Your task to perform on an android device: Open the Play Movies app and select the watchlist tab. Image 0: 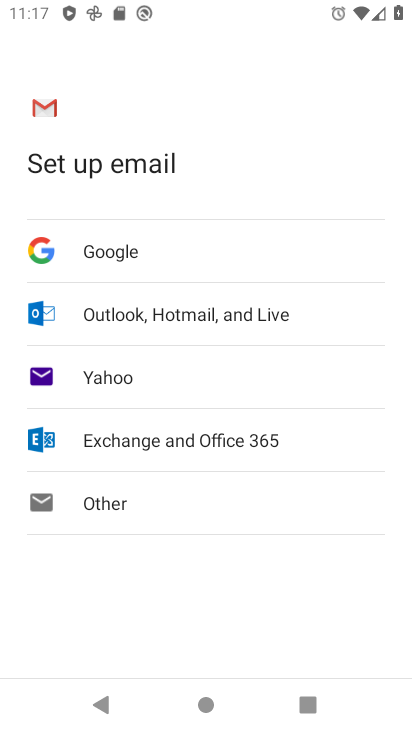
Step 0: press back button
Your task to perform on an android device: Open the Play Movies app and select the watchlist tab. Image 1: 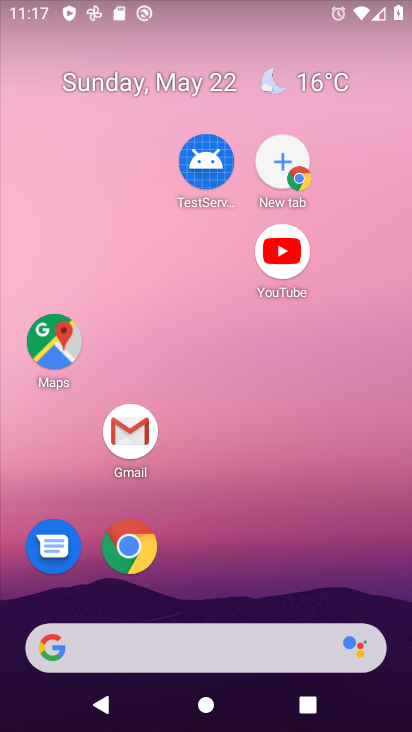
Step 1: drag from (314, 691) to (230, 155)
Your task to perform on an android device: Open the Play Movies app and select the watchlist tab. Image 2: 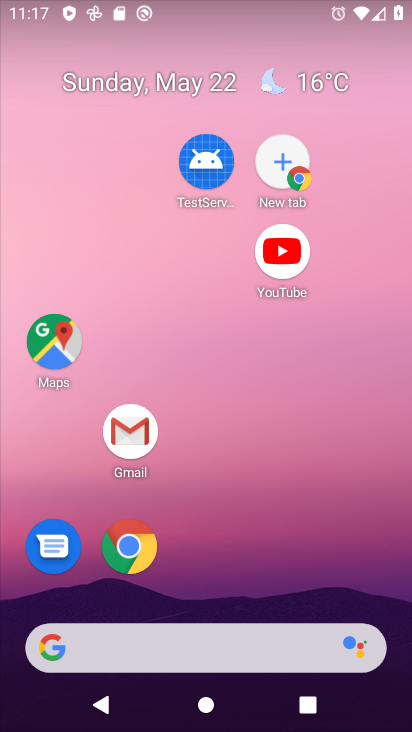
Step 2: drag from (246, 702) to (233, 259)
Your task to perform on an android device: Open the Play Movies app and select the watchlist tab. Image 3: 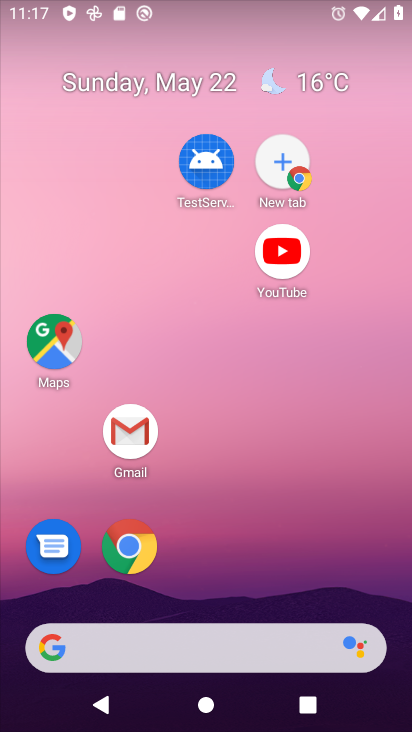
Step 3: drag from (264, 698) to (225, 159)
Your task to perform on an android device: Open the Play Movies app and select the watchlist tab. Image 4: 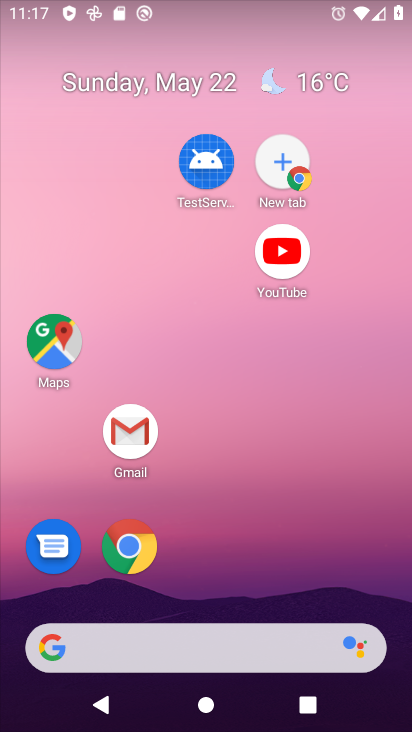
Step 4: drag from (251, 624) to (251, 176)
Your task to perform on an android device: Open the Play Movies app and select the watchlist tab. Image 5: 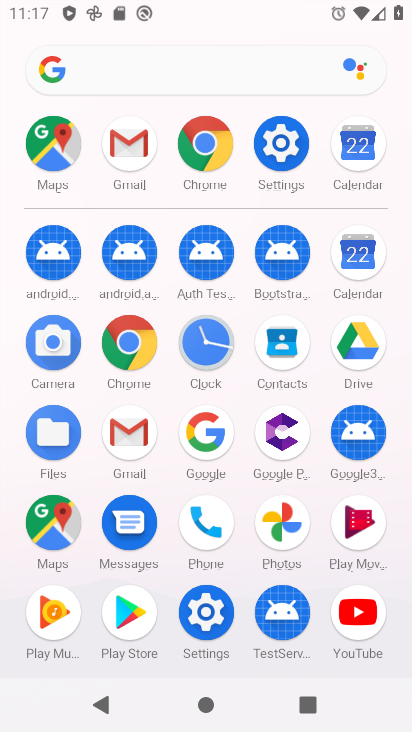
Step 5: drag from (252, 470) to (252, 194)
Your task to perform on an android device: Open the Play Movies app and select the watchlist tab. Image 6: 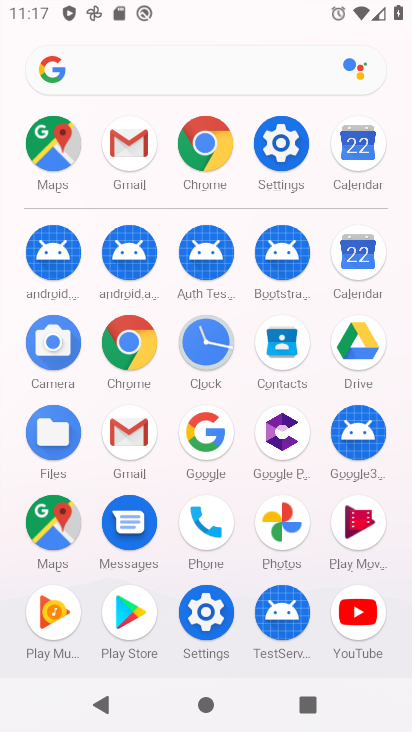
Step 6: click (362, 596)
Your task to perform on an android device: Open the Play Movies app and select the watchlist tab. Image 7: 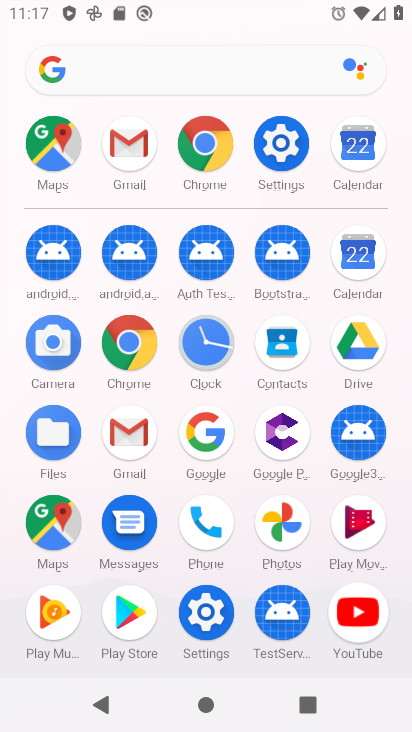
Step 7: click (362, 607)
Your task to perform on an android device: Open the Play Movies app and select the watchlist tab. Image 8: 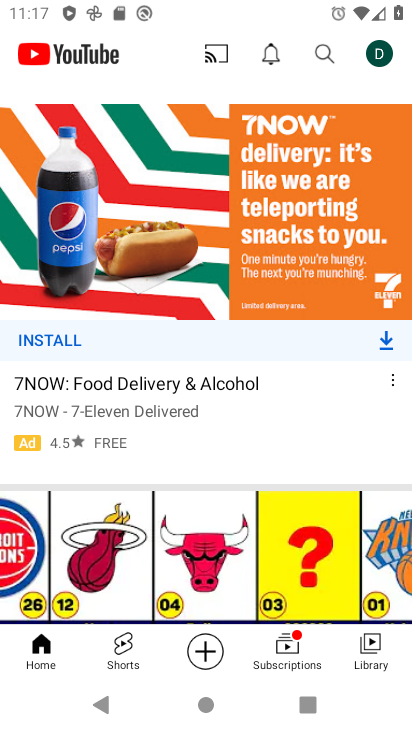
Step 8: press back button
Your task to perform on an android device: Open the Play Movies app and select the watchlist tab. Image 9: 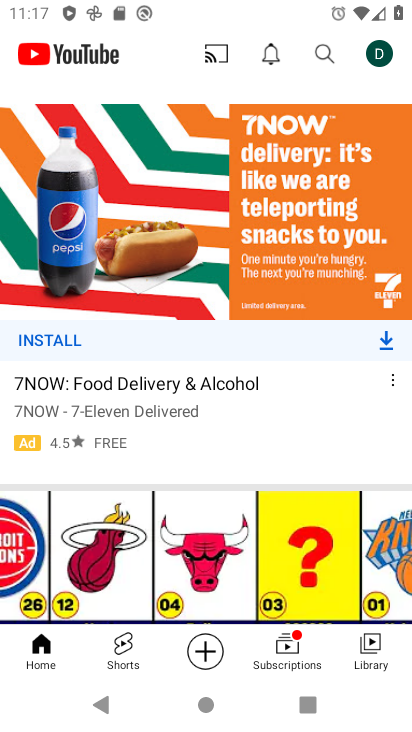
Step 9: press back button
Your task to perform on an android device: Open the Play Movies app and select the watchlist tab. Image 10: 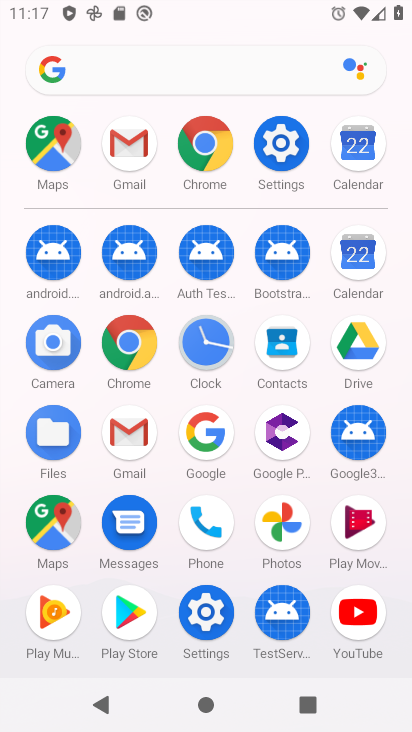
Step 10: press back button
Your task to perform on an android device: Open the Play Movies app and select the watchlist tab. Image 11: 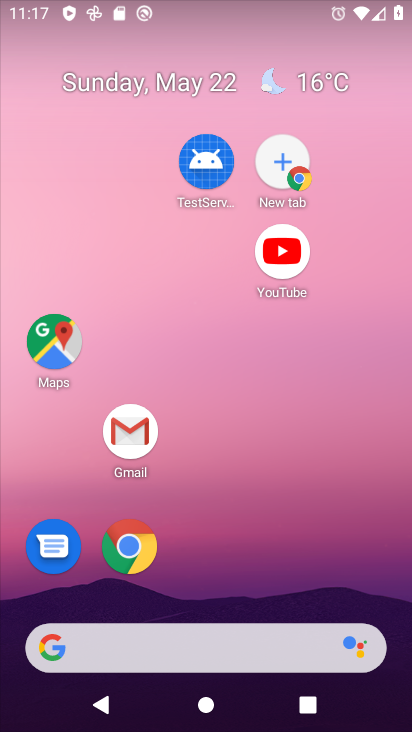
Step 11: drag from (249, 572) to (178, 147)
Your task to perform on an android device: Open the Play Movies app and select the watchlist tab. Image 12: 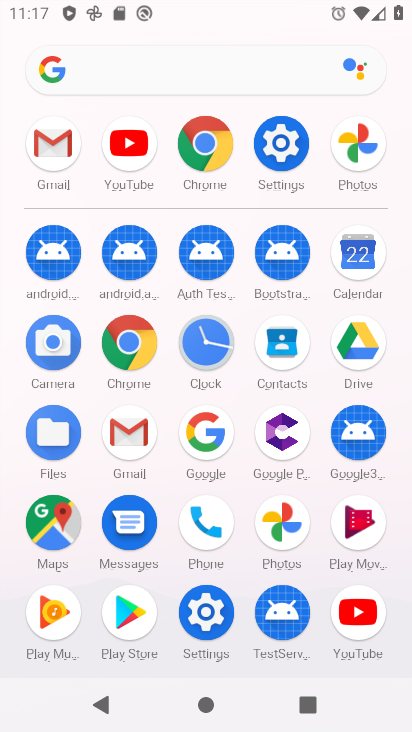
Step 12: drag from (226, 511) to (201, 70)
Your task to perform on an android device: Open the Play Movies app and select the watchlist tab. Image 13: 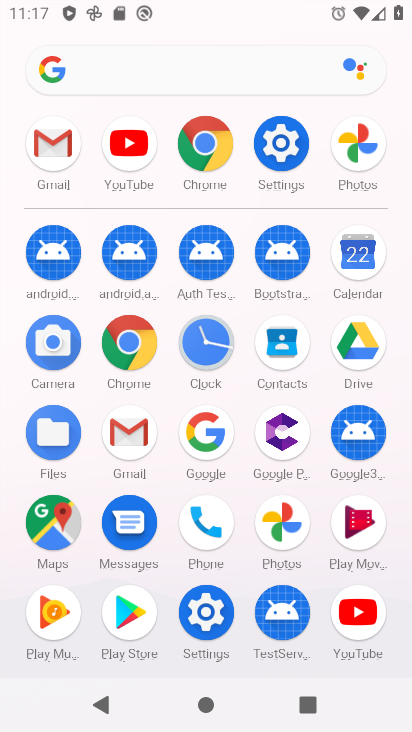
Step 13: click (354, 519)
Your task to perform on an android device: Open the Play Movies app and select the watchlist tab. Image 14: 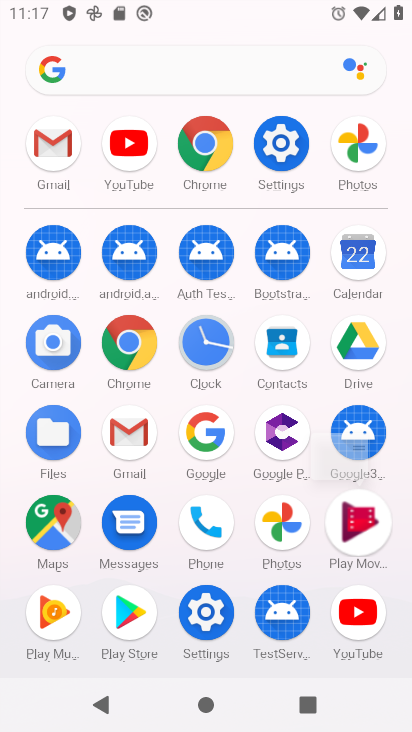
Step 14: click (354, 519)
Your task to perform on an android device: Open the Play Movies app and select the watchlist tab. Image 15: 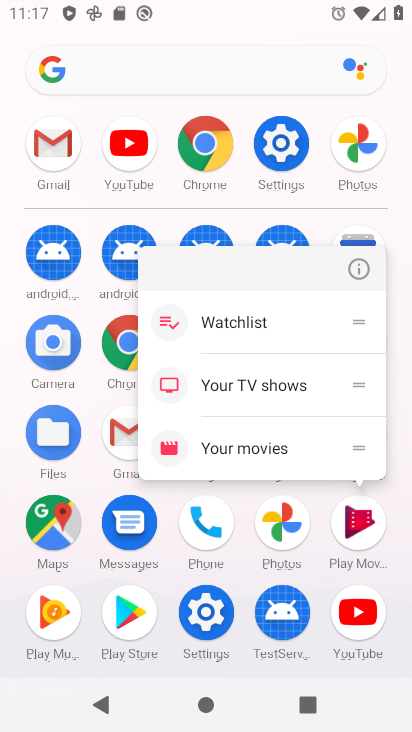
Step 15: click (354, 519)
Your task to perform on an android device: Open the Play Movies app and select the watchlist tab. Image 16: 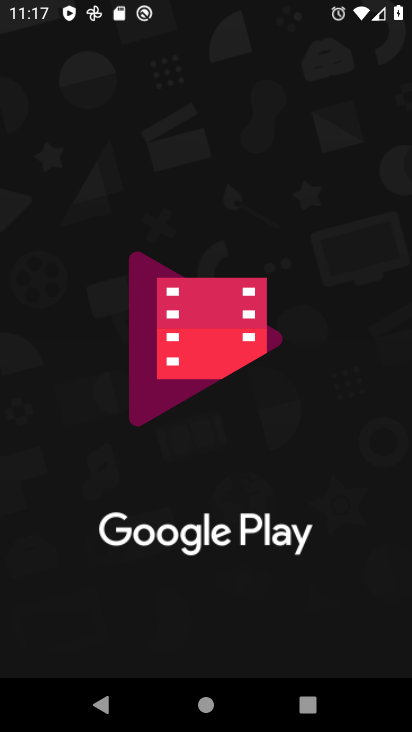
Step 16: drag from (210, 604) to (149, 89)
Your task to perform on an android device: Open the Play Movies app and select the watchlist tab. Image 17: 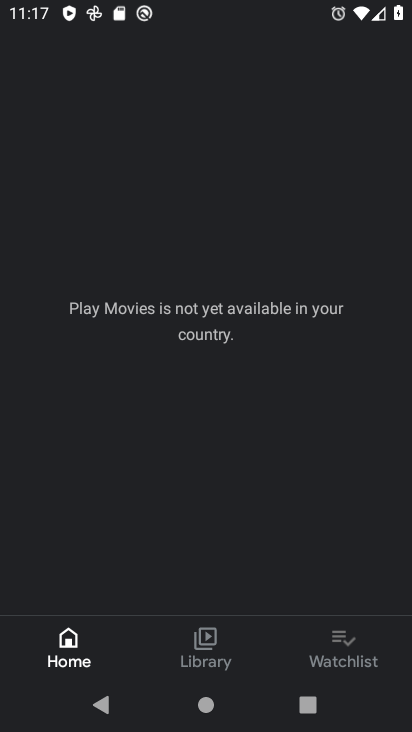
Step 17: drag from (196, 518) to (196, 147)
Your task to perform on an android device: Open the Play Movies app and select the watchlist tab. Image 18: 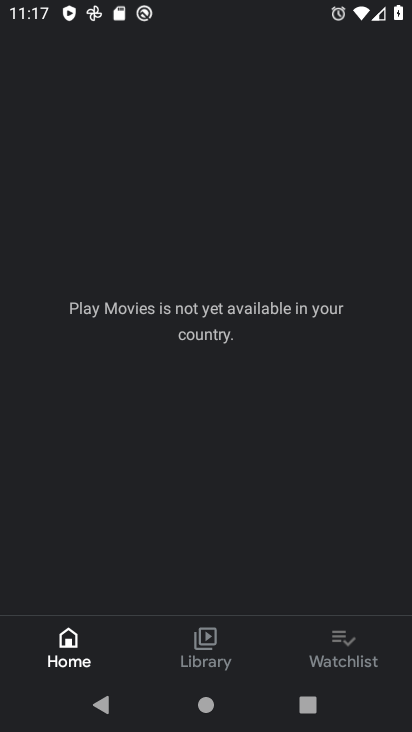
Step 18: click (357, 673)
Your task to perform on an android device: Open the Play Movies app and select the watchlist tab. Image 19: 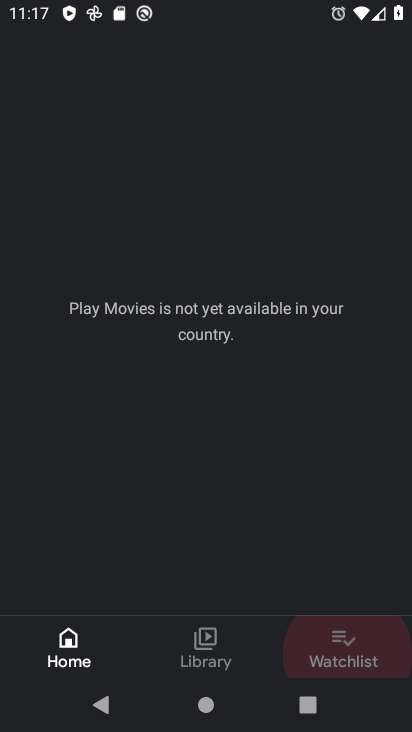
Step 19: click (359, 666)
Your task to perform on an android device: Open the Play Movies app and select the watchlist tab. Image 20: 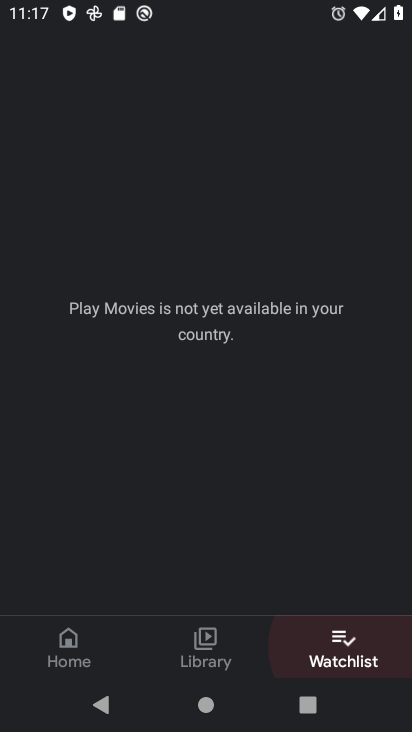
Step 20: click (360, 665)
Your task to perform on an android device: Open the Play Movies app and select the watchlist tab. Image 21: 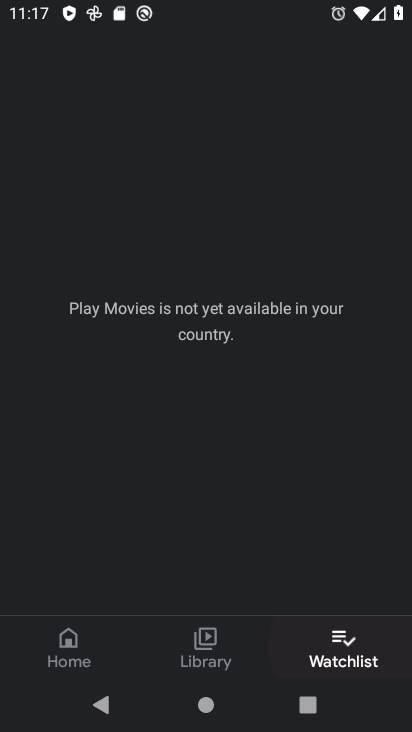
Step 21: click (357, 634)
Your task to perform on an android device: Open the Play Movies app and select the watchlist tab. Image 22: 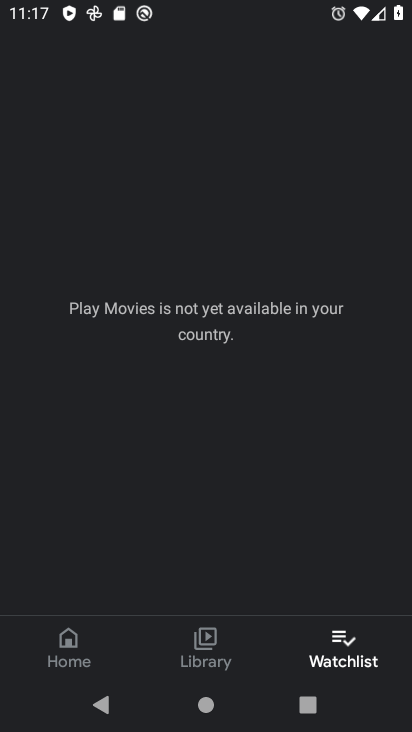
Step 22: task complete